Your task to perform on an android device: Open the calendar and show me this week's events? Image 0: 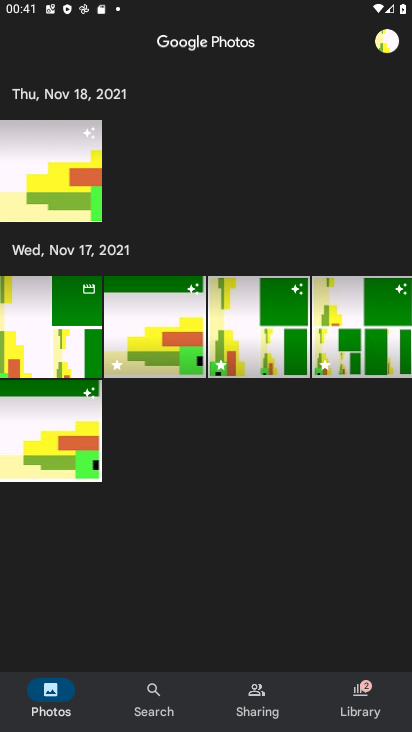
Step 0: press home button
Your task to perform on an android device: Open the calendar and show me this week's events? Image 1: 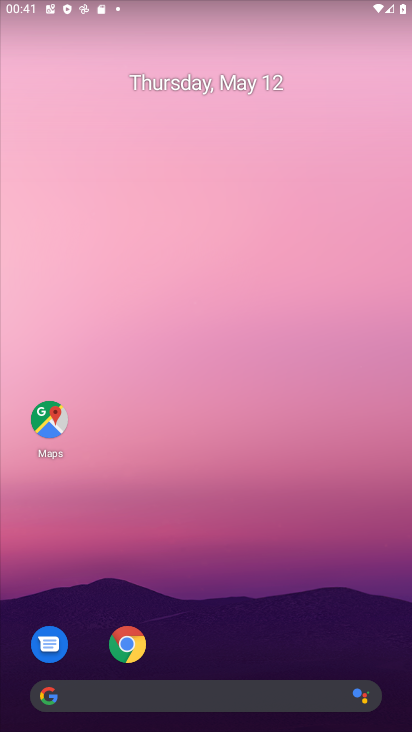
Step 1: drag from (250, 603) to (245, 4)
Your task to perform on an android device: Open the calendar and show me this week's events? Image 2: 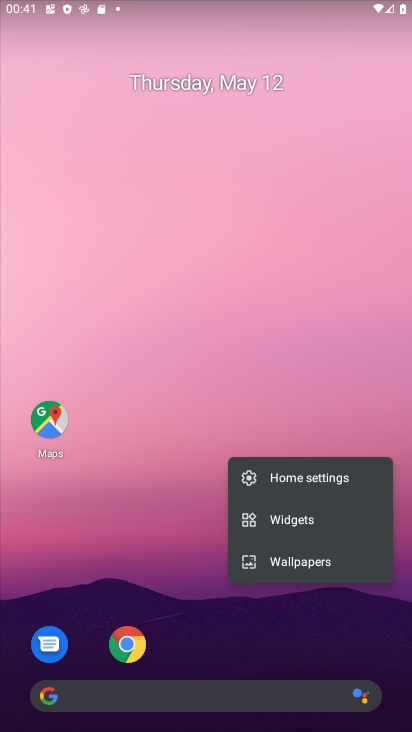
Step 2: click (147, 510)
Your task to perform on an android device: Open the calendar and show me this week's events? Image 3: 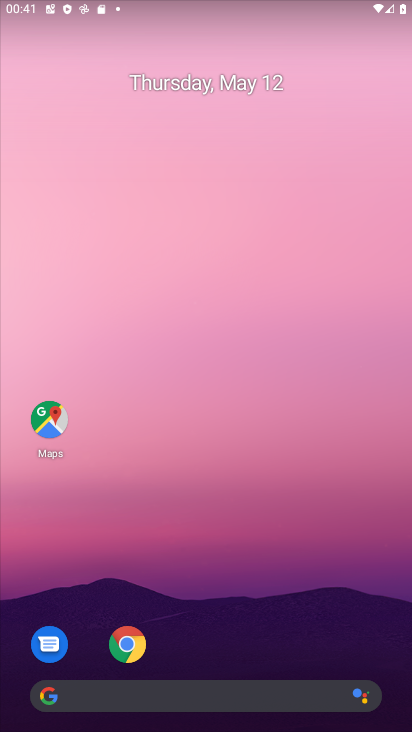
Step 3: drag from (207, 618) to (262, 13)
Your task to perform on an android device: Open the calendar and show me this week's events? Image 4: 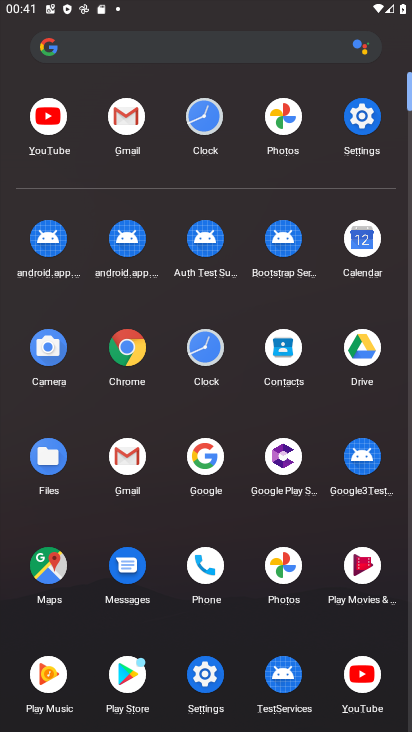
Step 4: click (345, 228)
Your task to perform on an android device: Open the calendar and show me this week's events? Image 5: 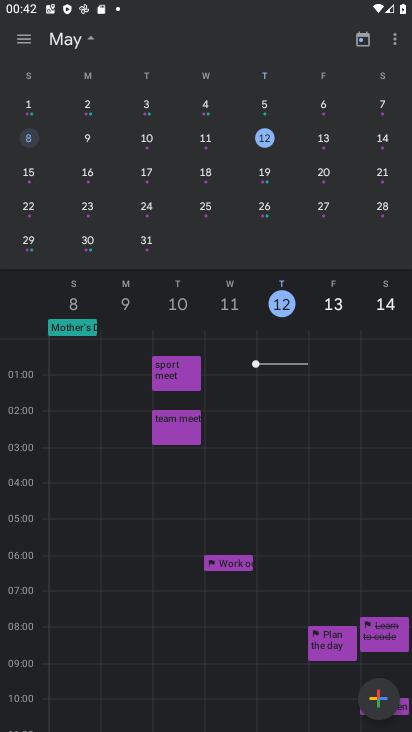
Step 5: click (30, 46)
Your task to perform on an android device: Open the calendar and show me this week's events? Image 6: 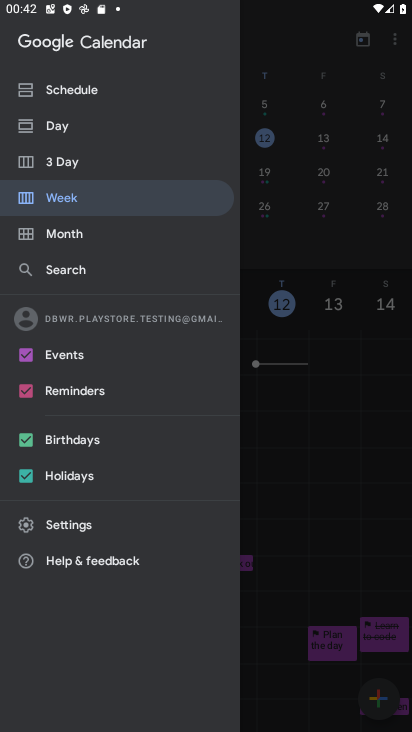
Step 6: click (87, 194)
Your task to perform on an android device: Open the calendar and show me this week's events? Image 7: 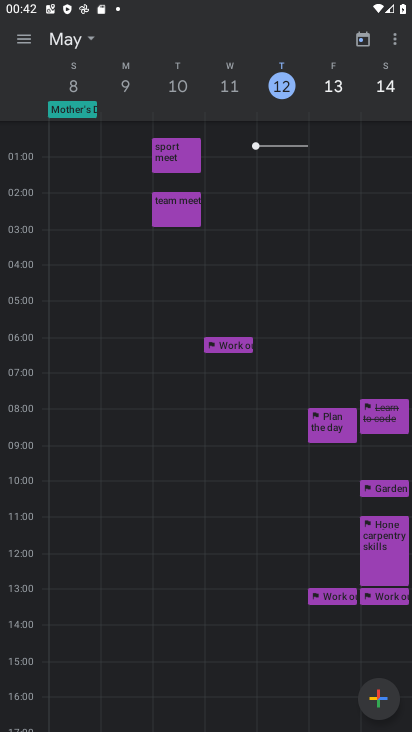
Step 7: task complete